Your task to perform on an android device: change your default location settings in chrome Image 0: 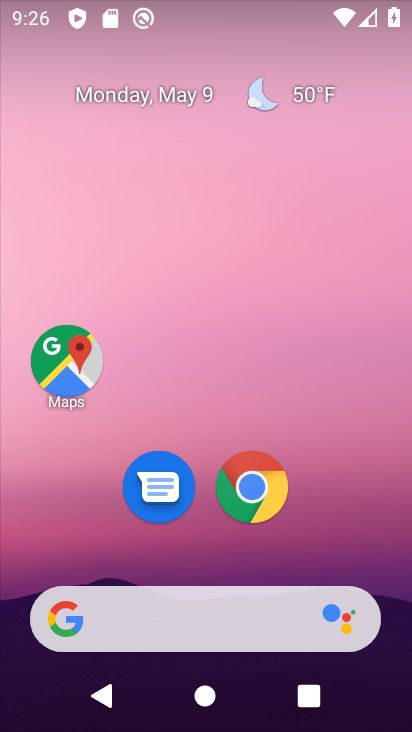
Step 0: press home button
Your task to perform on an android device: change your default location settings in chrome Image 1: 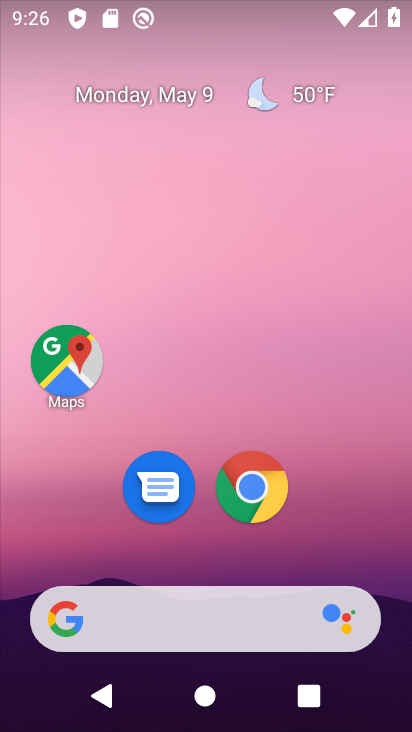
Step 1: click (248, 479)
Your task to perform on an android device: change your default location settings in chrome Image 2: 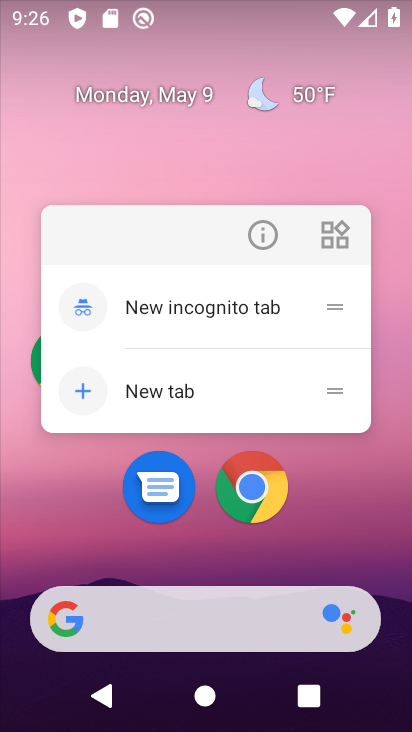
Step 2: click (264, 232)
Your task to perform on an android device: change your default location settings in chrome Image 3: 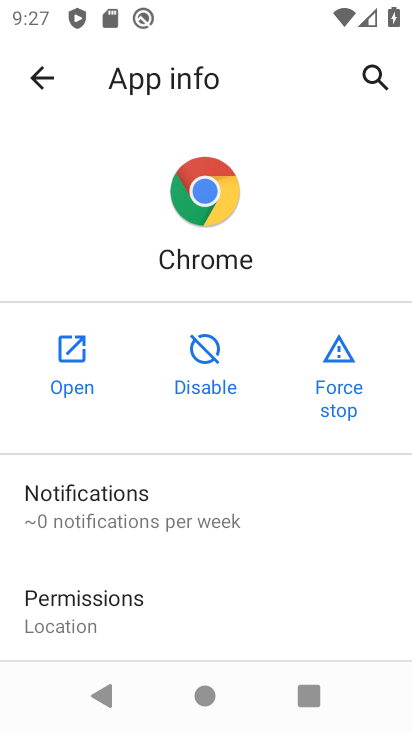
Step 3: click (75, 344)
Your task to perform on an android device: change your default location settings in chrome Image 4: 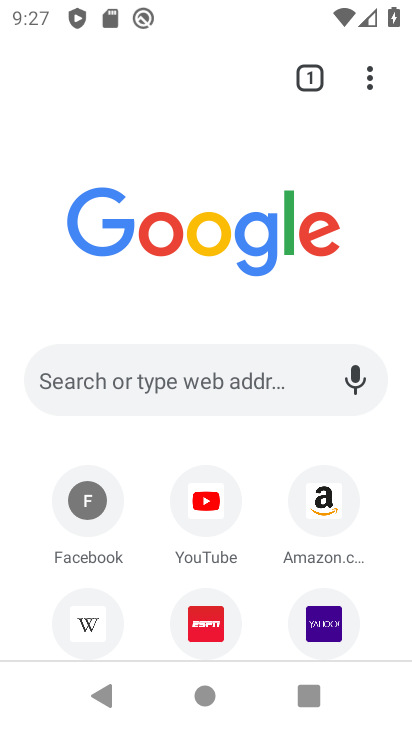
Step 4: click (370, 80)
Your task to perform on an android device: change your default location settings in chrome Image 5: 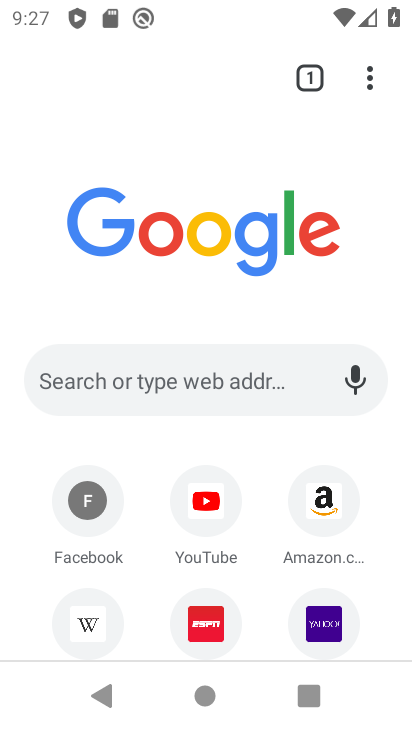
Step 5: click (371, 75)
Your task to perform on an android device: change your default location settings in chrome Image 6: 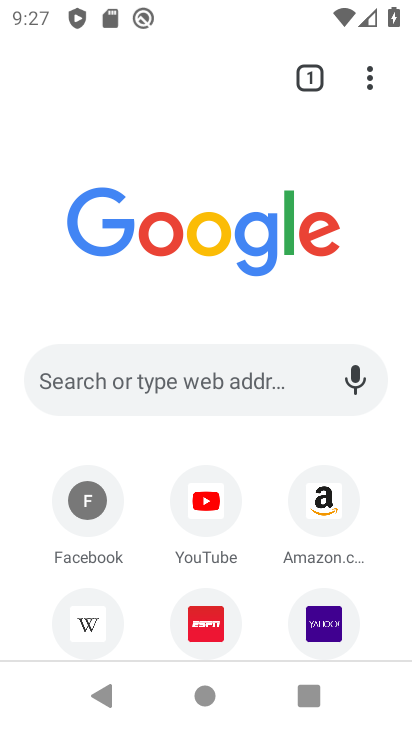
Step 6: click (352, 78)
Your task to perform on an android device: change your default location settings in chrome Image 7: 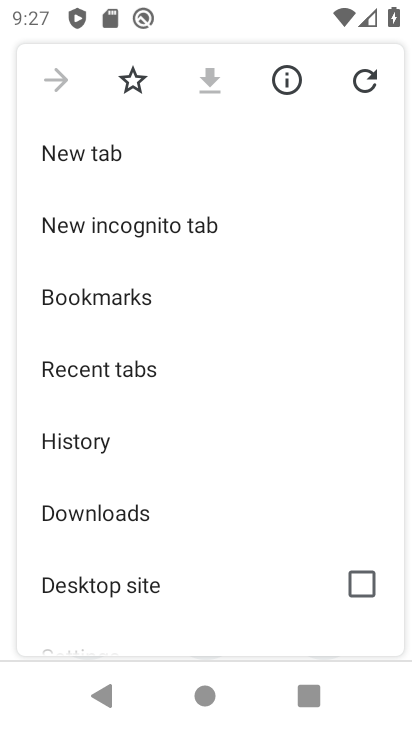
Step 7: drag from (134, 608) to (198, 130)
Your task to perform on an android device: change your default location settings in chrome Image 8: 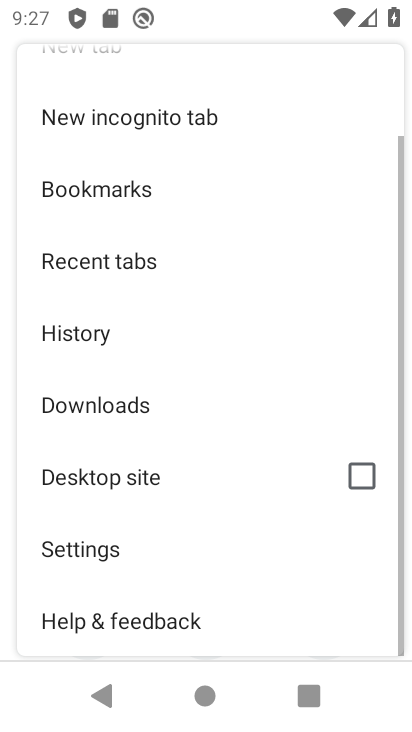
Step 8: click (97, 545)
Your task to perform on an android device: change your default location settings in chrome Image 9: 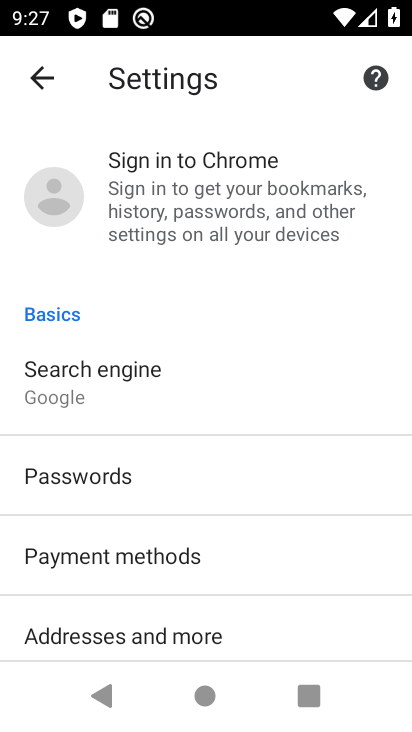
Step 9: drag from (101, 633) to (156, 179)
Your task to perform on an android device: change your default location settings in chrome Image 10: 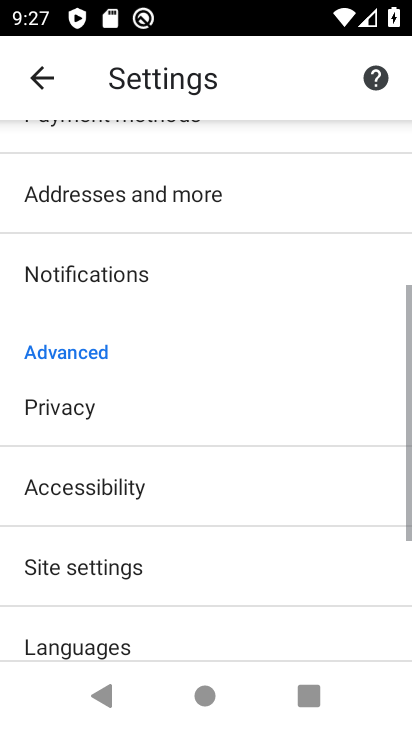
Step 10: drag from (45, 617) to (143, 123)
Your task to perform on an android device: change your default location settings in chrome Image 11: 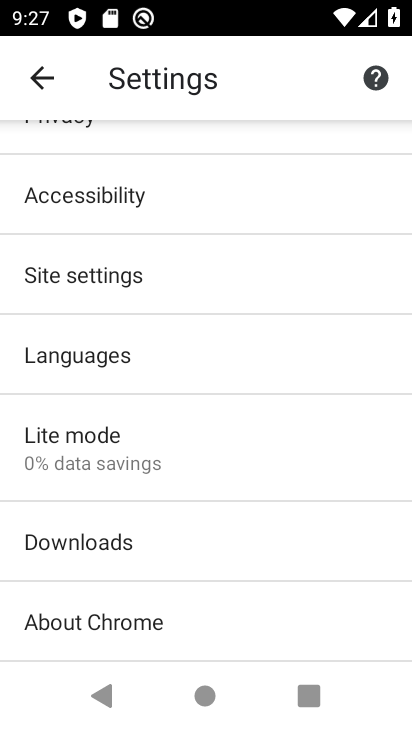
Step 11: click (54, 267)
Your task to perform on an android device: change your default location settings in chrome Image 12: 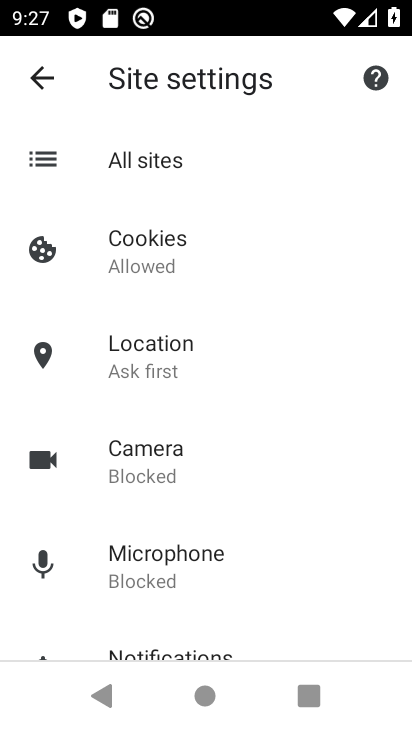
Step 12: drag from (135, 651) to (243, 234)
Your task to perform on an android device: change your default location settings in chrome Image 13: 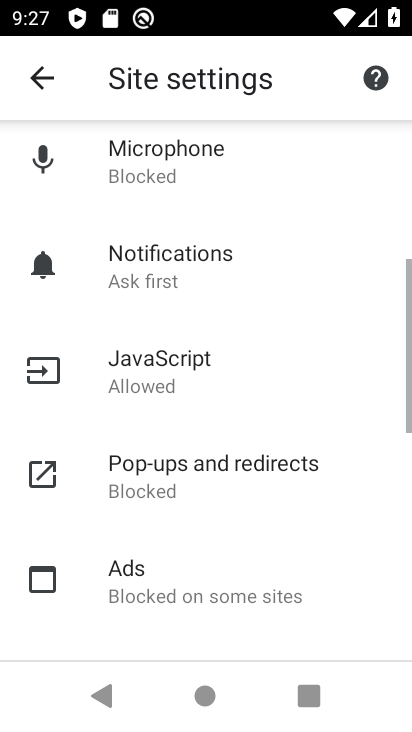
Step 13: drag from (88, 633) to (196, 209)
Your task to perform on an android device: change your default location settings in chrome Image 14: 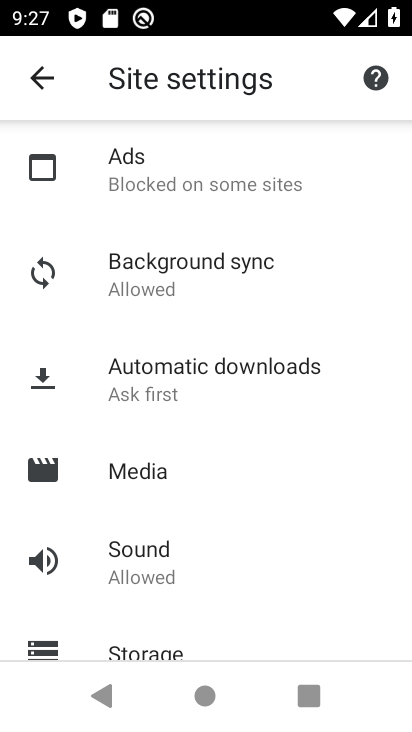
Step 14: drag from (87, 605) to (213, 217)
Your task to perform on an android device: change your default location settings in chrome Image 15: 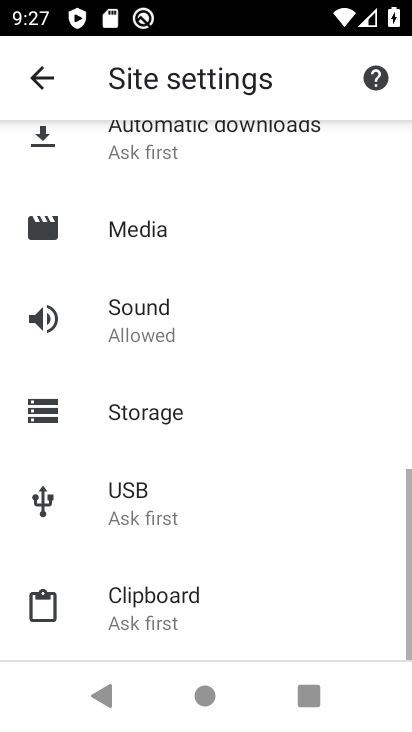
Step 15: drag from (72, 621) to (184, 213)
Your task to perform on an android device: change your default location settings in chrome Image 16: 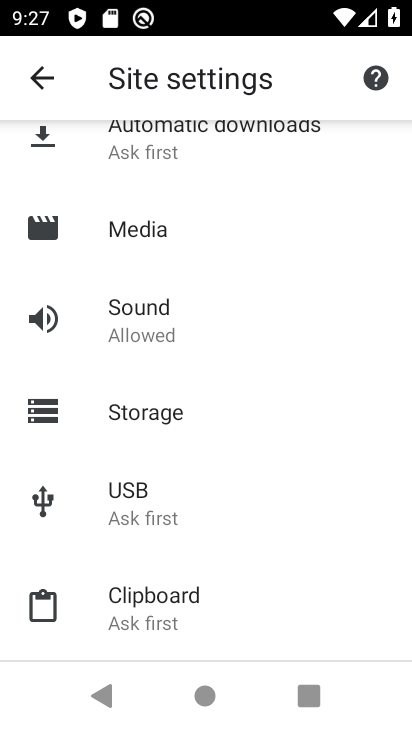
Step 16: drag from (133, 184) to (136, 608)
Your task to perform on an android device: change your default location settings in chrome Image 17: 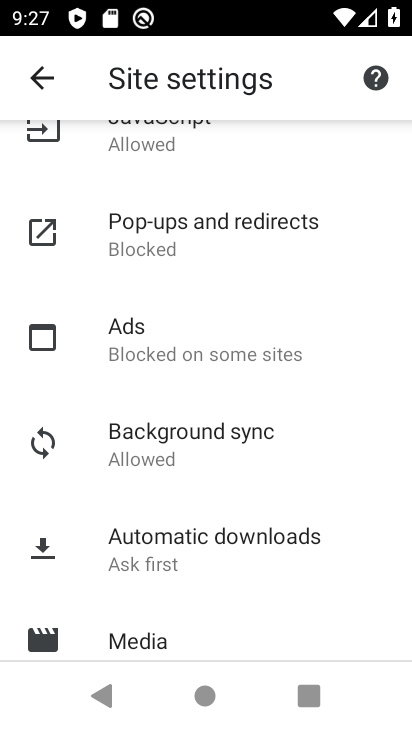
Step 17: drag from (156, 189) to (77, 634)
Your task to perform on an android device: change your default location settings in chrome Image 18: 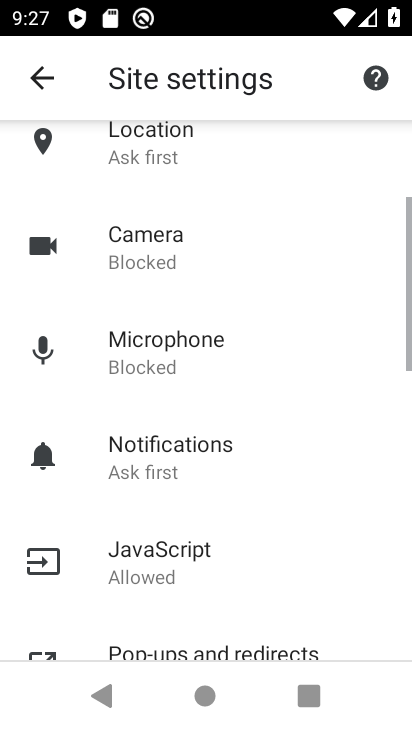
Step 18: click (146, 164)
Your task to perform on an android device: change your default location settings in chrome Image 19: 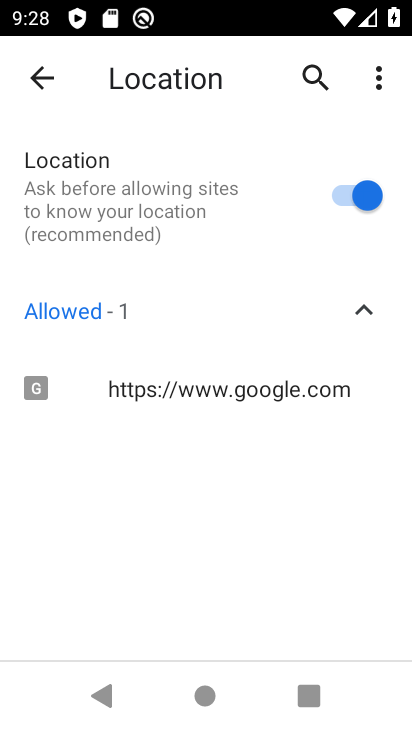
Step 19: task complete